Your task to perform on an android device: Turn on the flashlight Image 0: 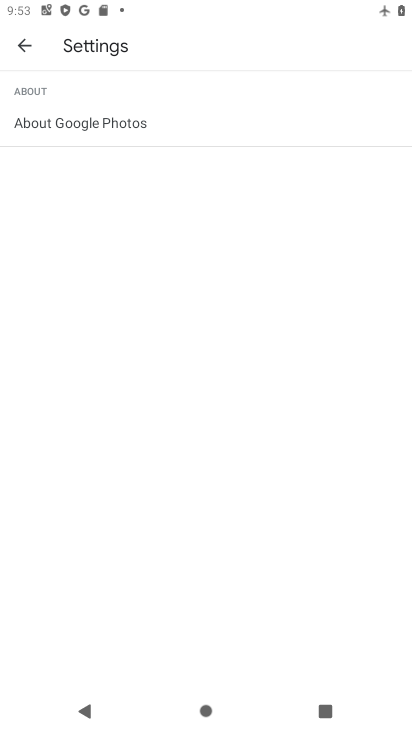
Step 0: press home button
Your task to perform on an android device: Turn on the flashlight Image 1: 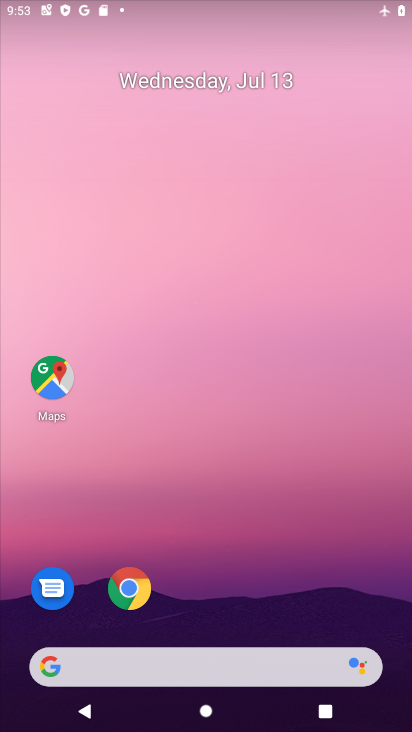
Step 1: drag from (220, 591) to (243, 161)
Your task to perform on an android device: Turn on the flashlight Image 2: 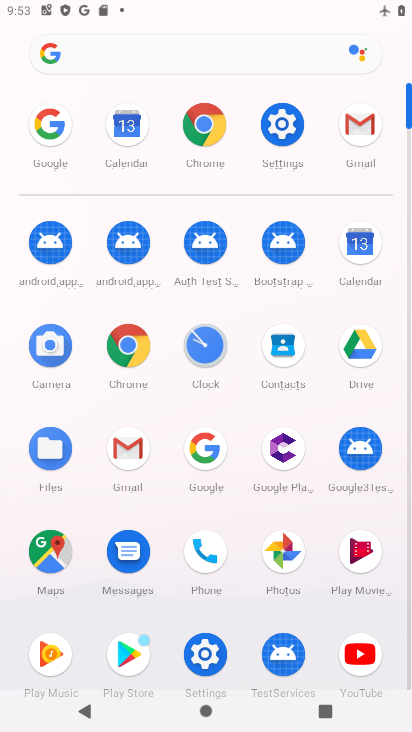
Step 2: click (285, 126)
Your task to perform on an android device: Turn on the flashlight Image 3: 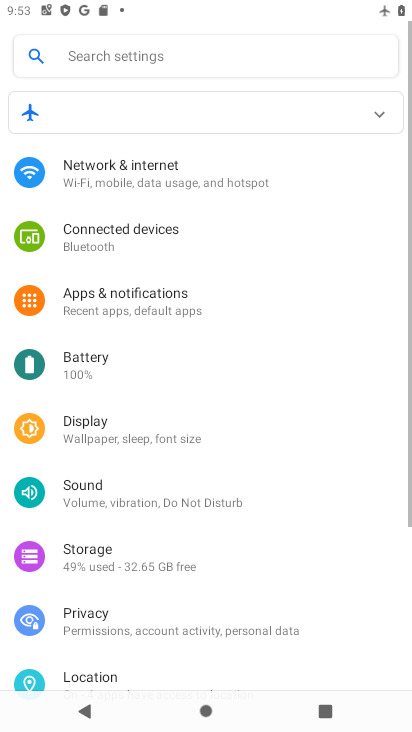
Step 3: click (172, 58)
Your task to perform on an android device: Turn on the flashlight Image 4: 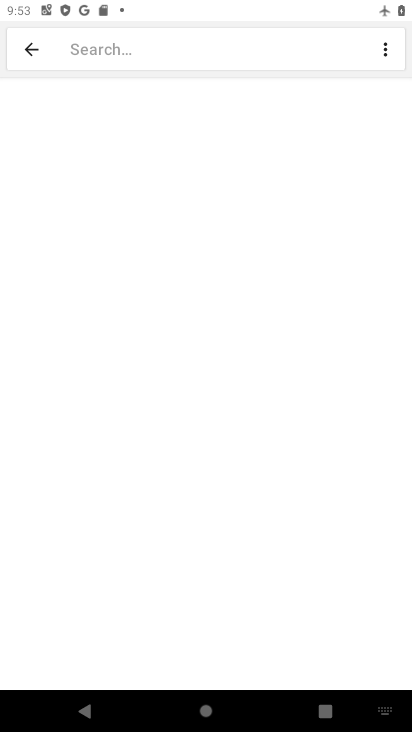
Step 4: type "flashlight"
Your task to perform on an android device: Turn on the flashlight Image 5: 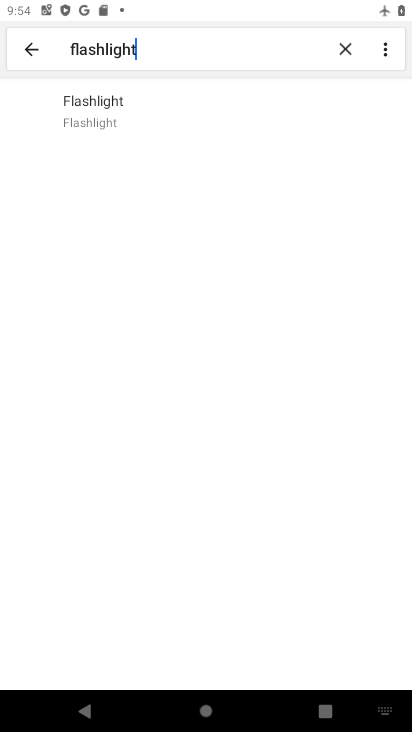
Step 5: task complete